Your task to perform on an android device: Open the stopwatch Image 0: 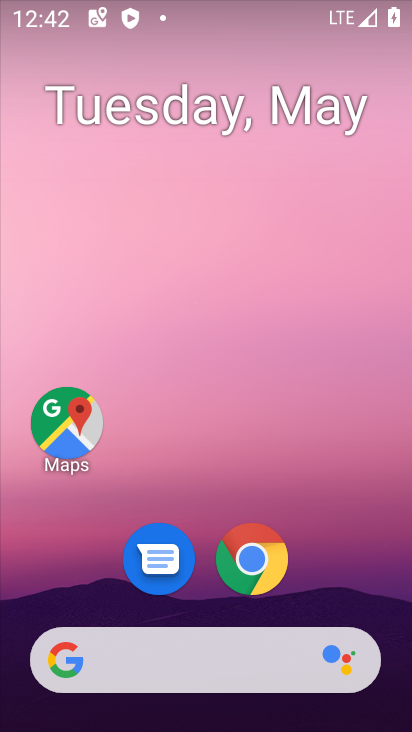
Step 0: drag from (353, 305) to (301, 80)
Your task to perform on an android device: Open the stopwatch Image 1: 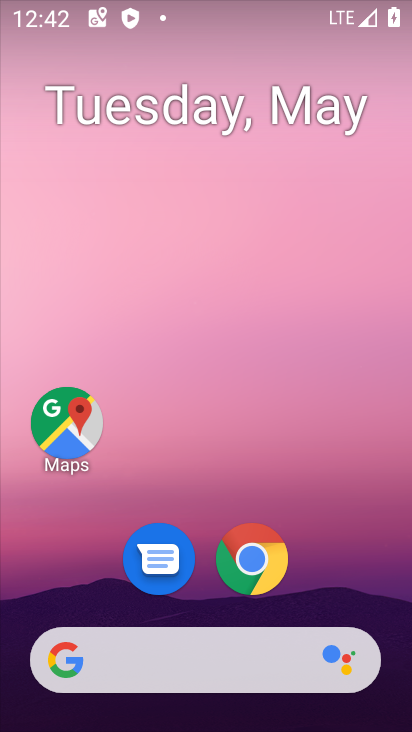
Step 1: drag from (305, 531) to (252, 40)
Your task to perform on an android device: Open the stopwatch Image 2: 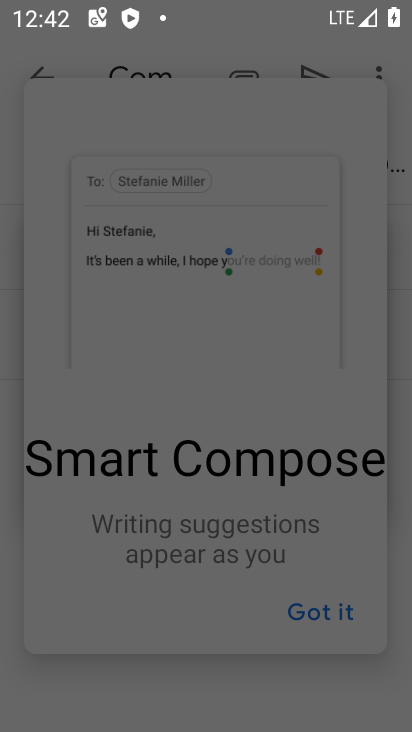
Step 2: press home button
Your task to perform on an android device: Open the stopwatch Image 3: 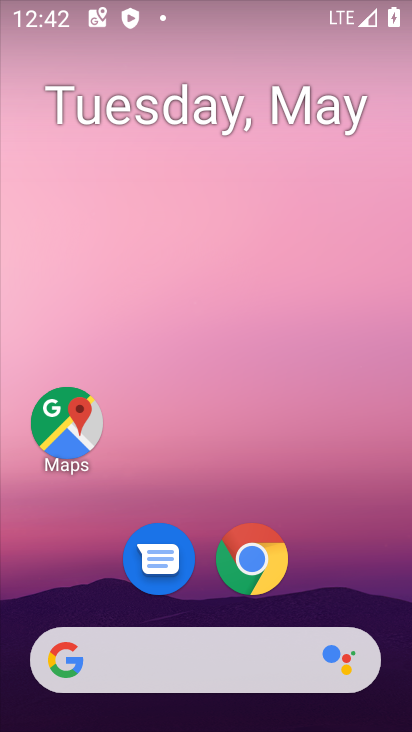
Step 3: drag from (355, 432) to (269, 39)
Your task to perform on an android device: Open the stopwatch Image 4: 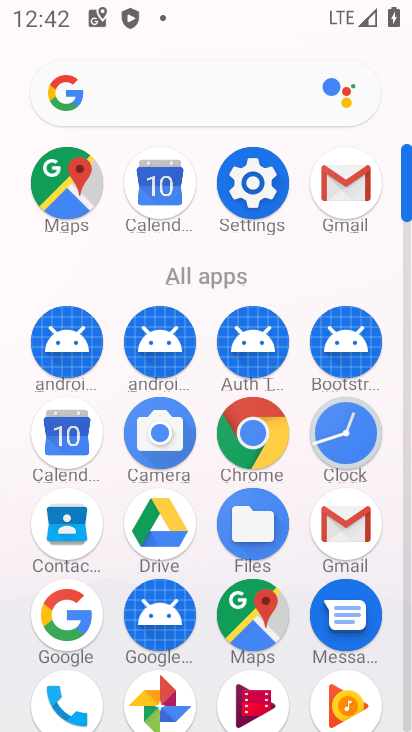
Step 4: click (340, 441)
Your task to perform on an android device: Open the stopwatch Image 5: 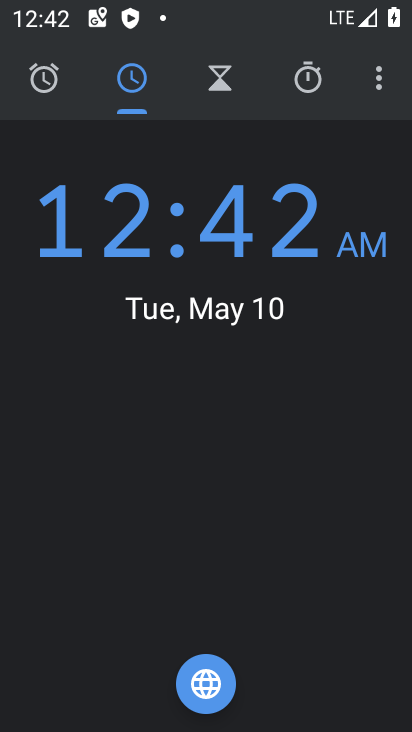
Step 5: click (311, 81)
Your task to perform on an android device: Open the stopwatch Image 6: 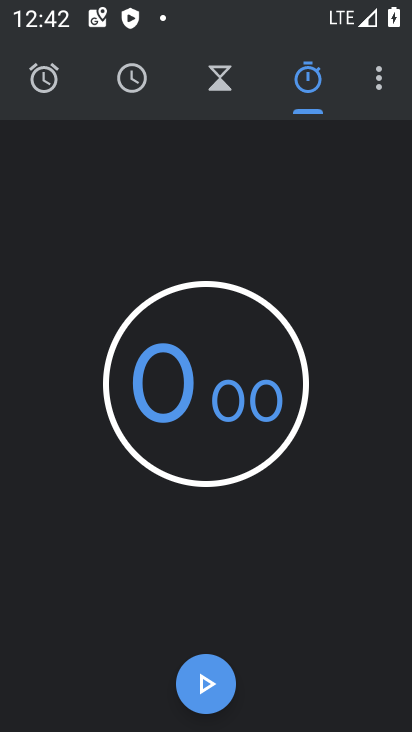
Step 6: task complete